Your task to perform on an android device: What's the weather today? Image 0: 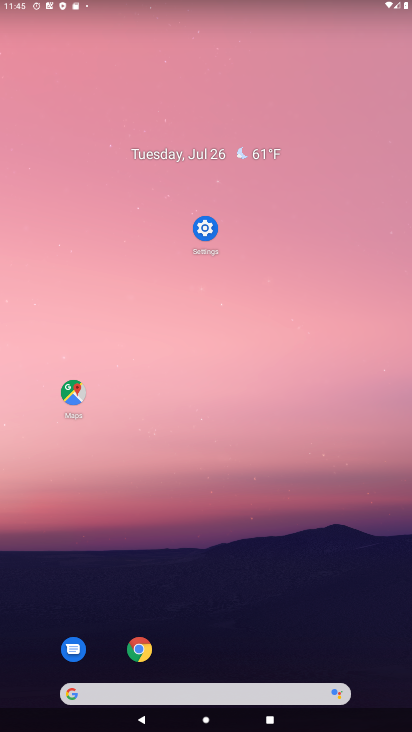
Step 0: drag from (288, 645) to (211, 44)
Your task to perform on an android device: What's the weather today? Image 1: 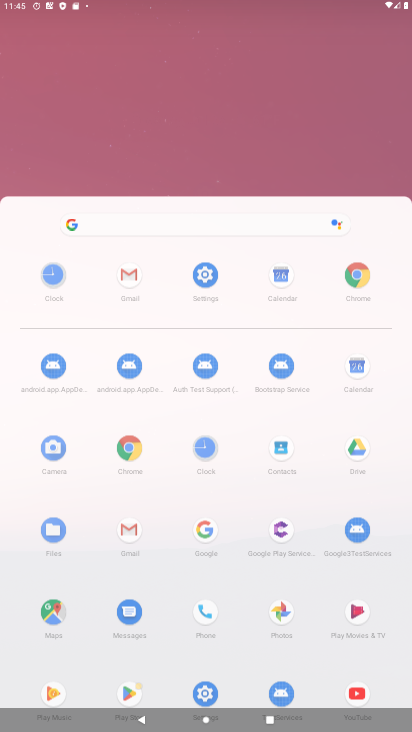
Step 1: drag from (250, 377) to (260, 45)
Your task to perform on an android device: What's the weather today? Image 2: 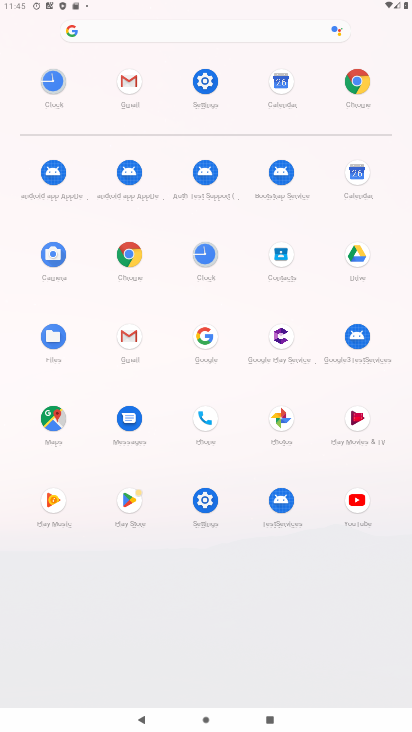
Step 2: drag from (215, 136) to (271, 16)
Your task to perform on an android device: What's the weather today? Image 3: 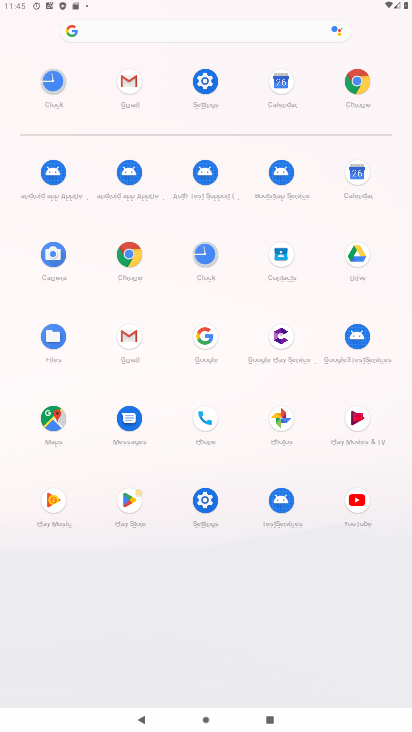
Step 3: click (366, 80)
Your task to perform on an android device: What's the weather today? Image 4: 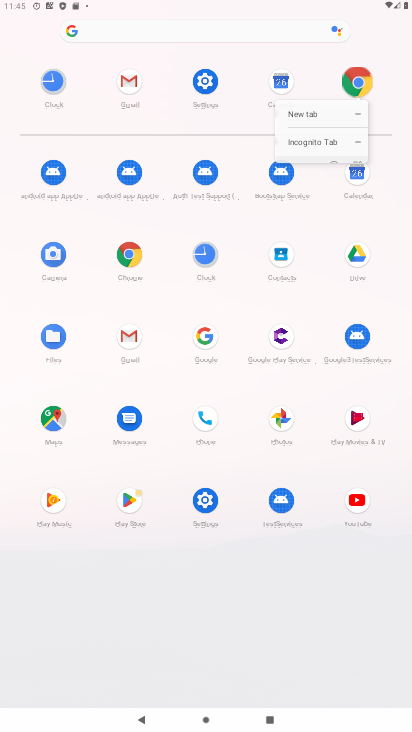
Step 4: click (368, 80)
Your task to perform on an android device: What's the weather today? Image 5: 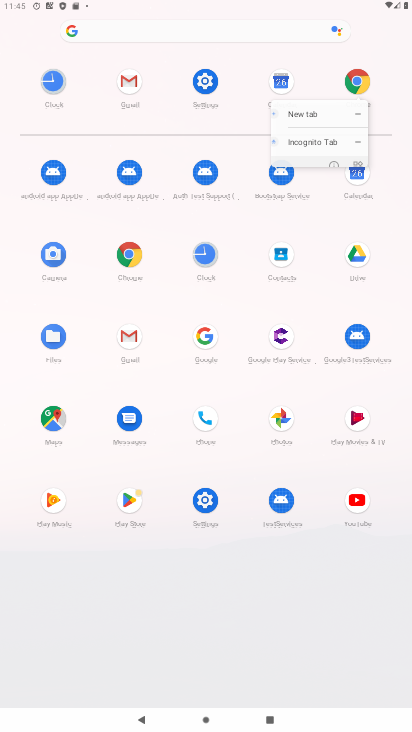
Step 5: click (368, 78)
Your task to perform on an android device: What's the weather today? Image 6: 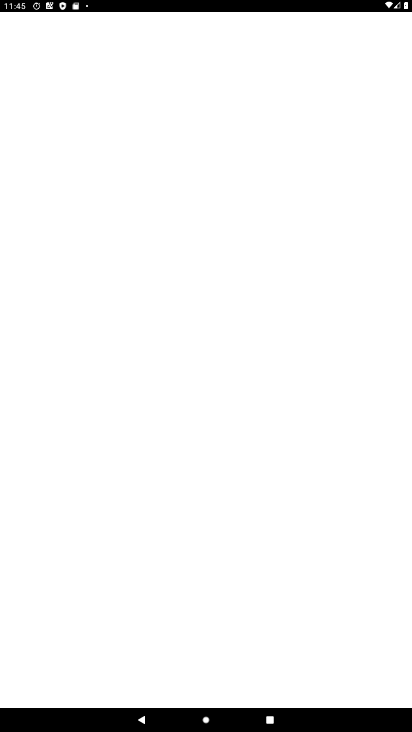
Step 6: click (368, 78)
Your task to perform on an android device: What's the weather today? Image 7: 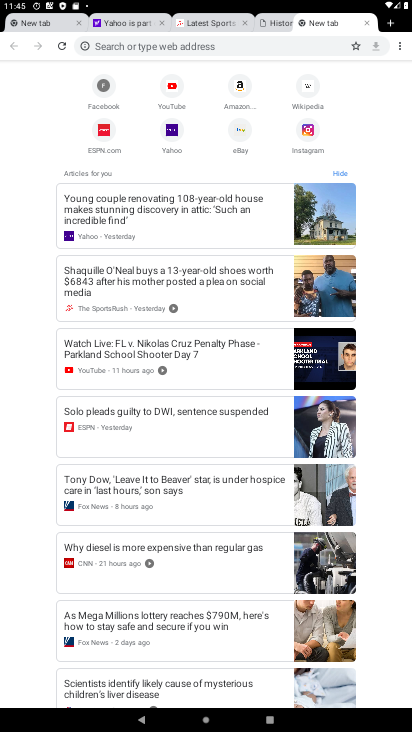
Step 7: click (395, 38)
Your task to perform on an android device: What's the weather today? Image 8: 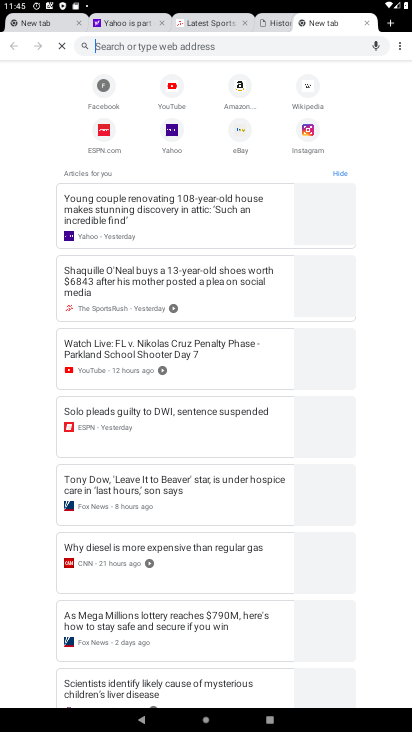
Step 8: click (132, 43)
Your task to perform on an android device: What's the weather today? Image 9: 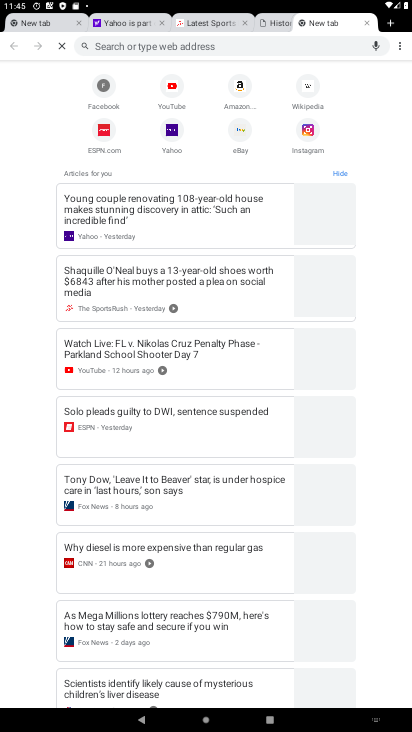
Step 9: click (131, 40)
Your task to perform on an android device: What's the weather today? Image 10: 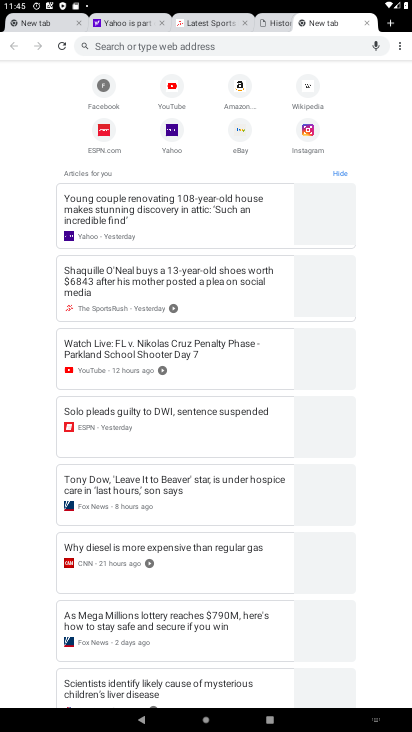
Step 10: click (128, 39)
Your task to perform on an android device: What's the weather today? Image 11: 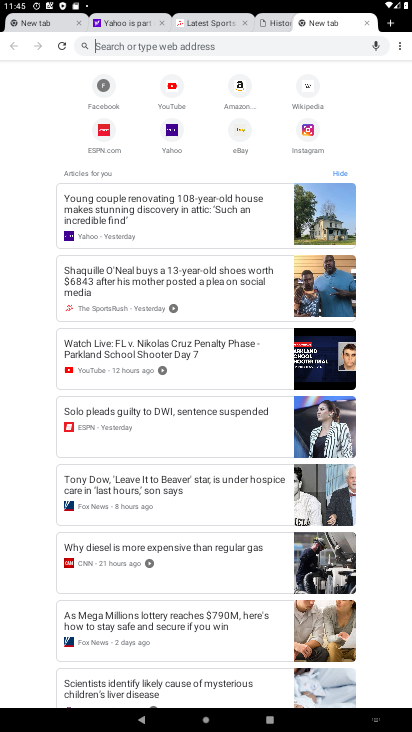
Step 11: type "what's the weather today?"
Your task to perform on an android device: What's the weather today? Image 12: 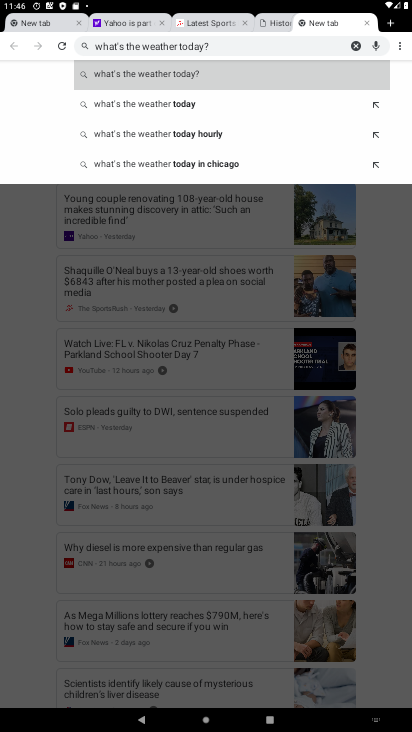
Step 12: click (206, 68)
Your task to perform on an android device: What's the weather today? Image 13: 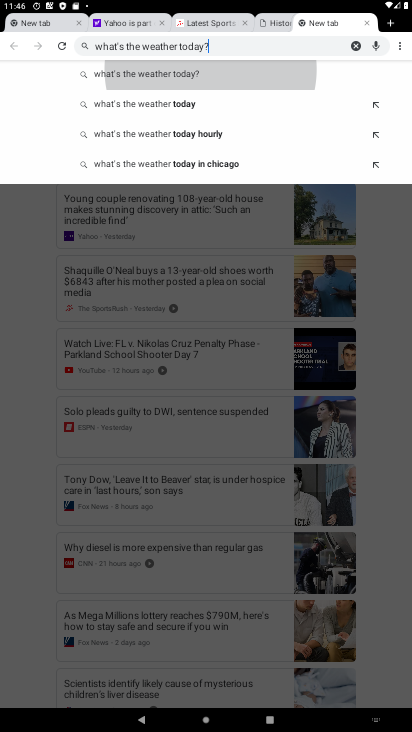
Step 13: click (209, 68)
Your task to perform on an android device: What's the weather today? Image 14: 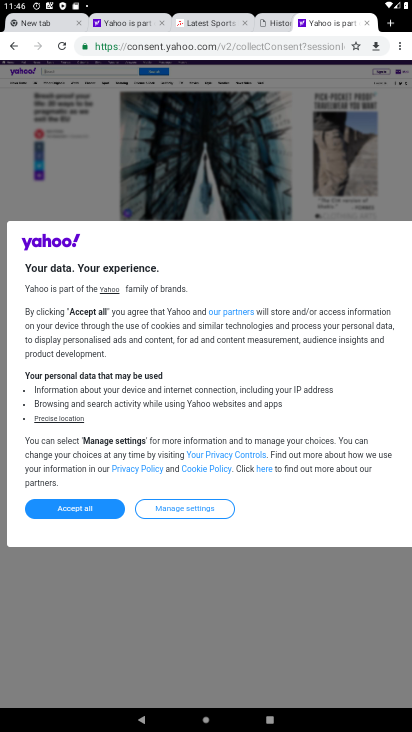
Step 14: task complete